Your task to perform on an android device: clear history in the chrome app Image 0: 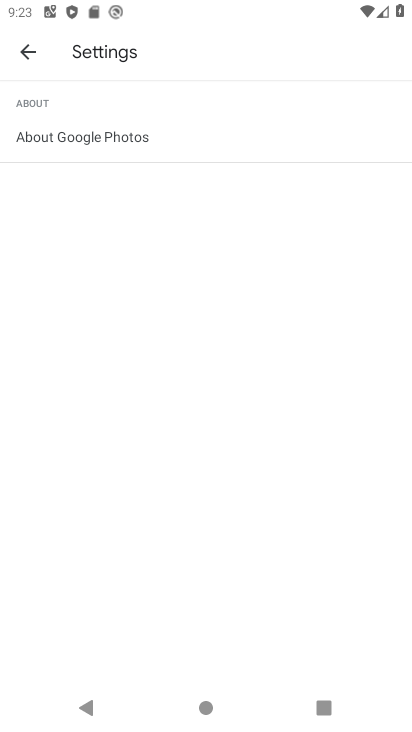
Step 0: click (19, 53)
Your task to perform on an android device: clear history in the chrome app Image 1: 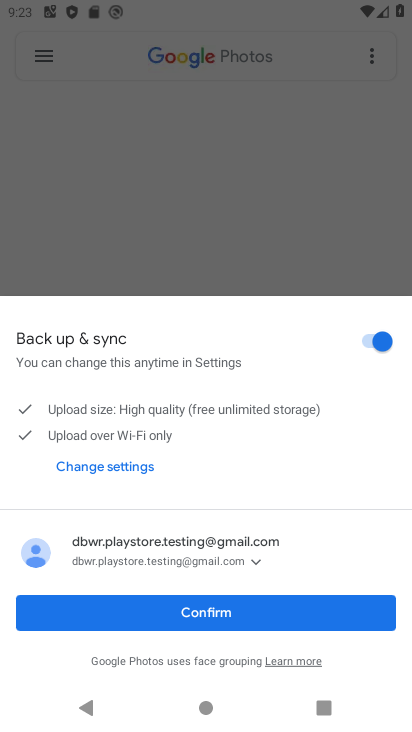
Step 1: click (180, 611)
Your task to perform on an android device: clear history in the chrome app Image 2: 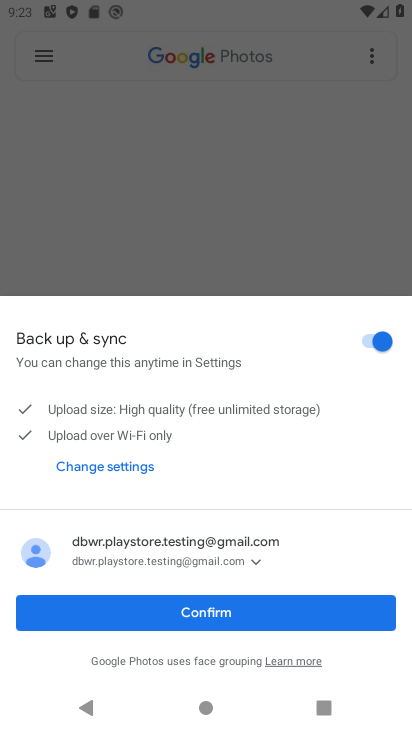
Step 2: click (181, 611)
Your task to perform on an android device: clear history in the chrome app Image 3: 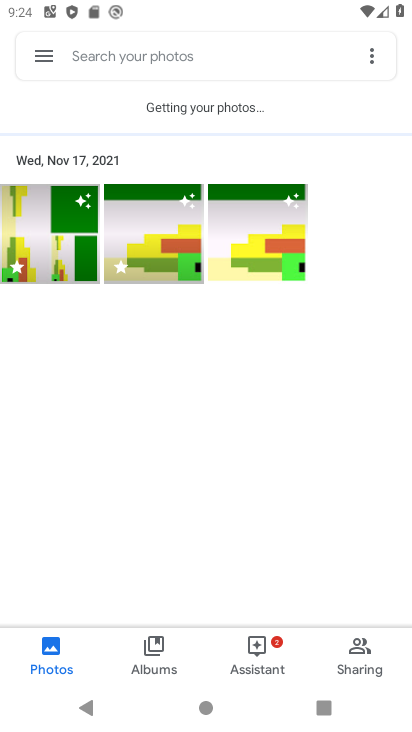
Step 3: press home button
Your task to perform on an android device: clear history in the chrome app Image 4: 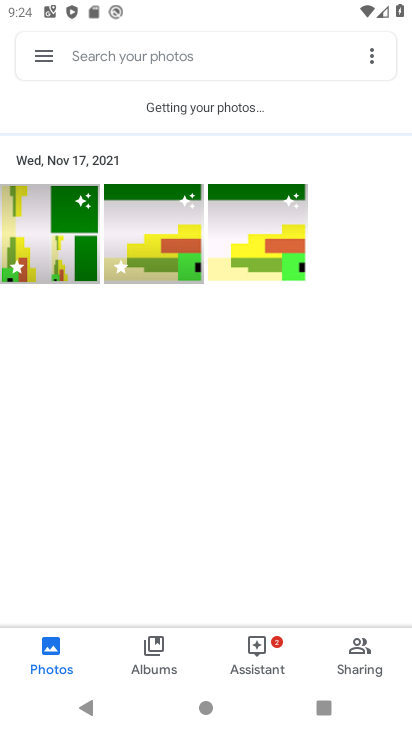
Step 4: press home button
Your task to perform on an android device: clear history in the chrome app Image 5: 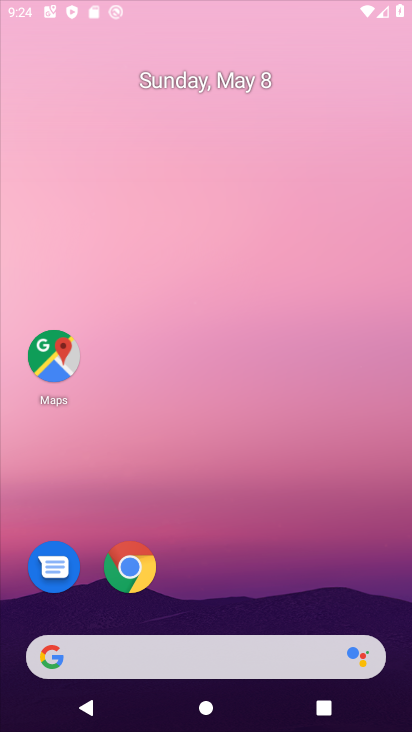
Step 5: press home button
Your task to perform on an android device: clear history in the chrome app Image 6: 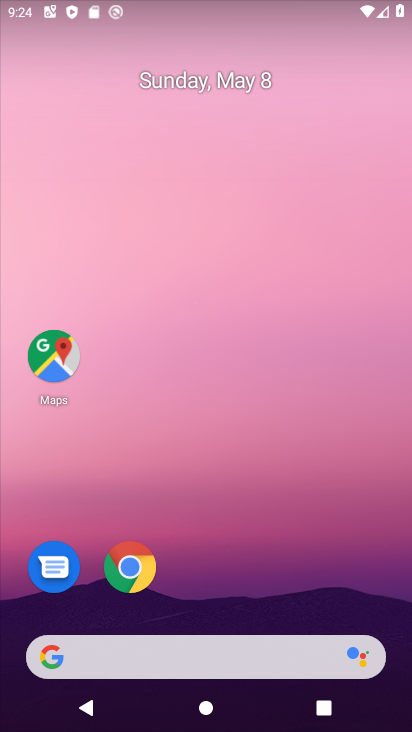
Step 6: drag from (272, 638) to (94, 127)
Your task to perform on an android device: clear history in the chrome app Image 7: 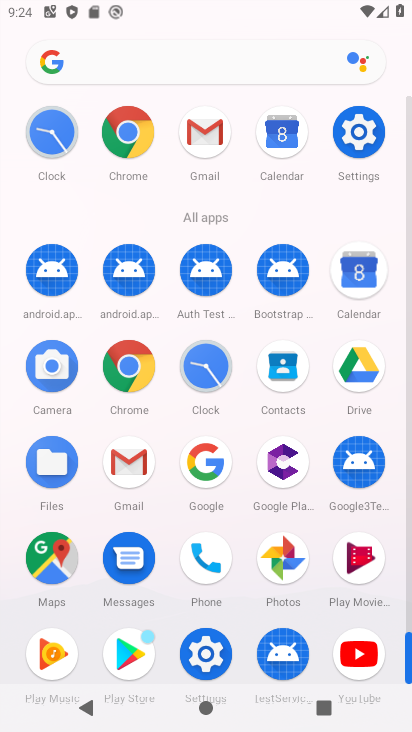
Step 7: click (127, 126)
Your task to perform on an android device: clear history in the chrome app Image 8: 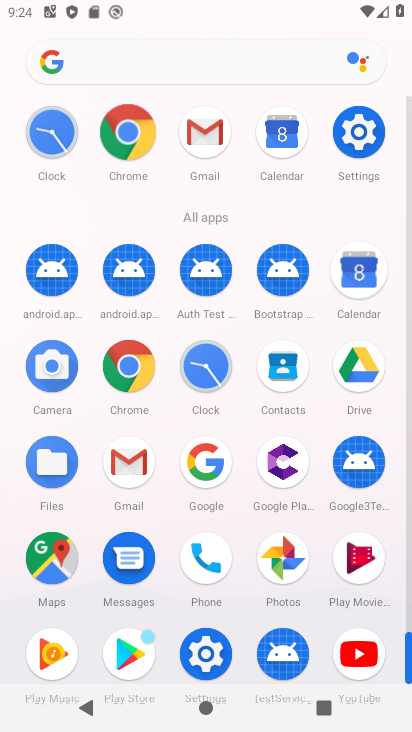
Step 8: click (126, 125)
Your task to perform on an android device: clear history in the chrome app Image 9: 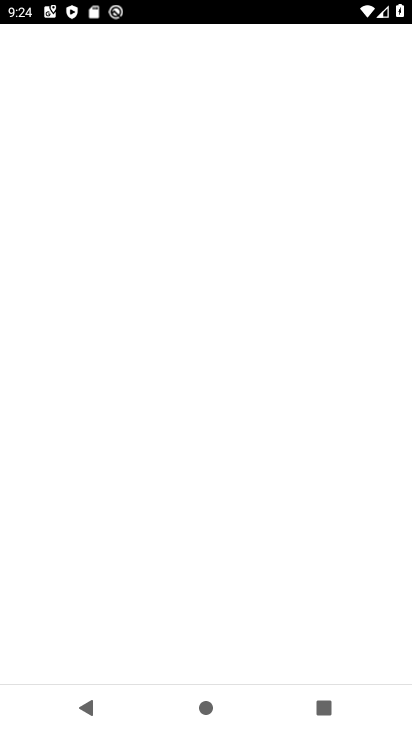
Step 9: click (123, 123)
Your task to perform on an android device: clear history in the chrome app Image 10: 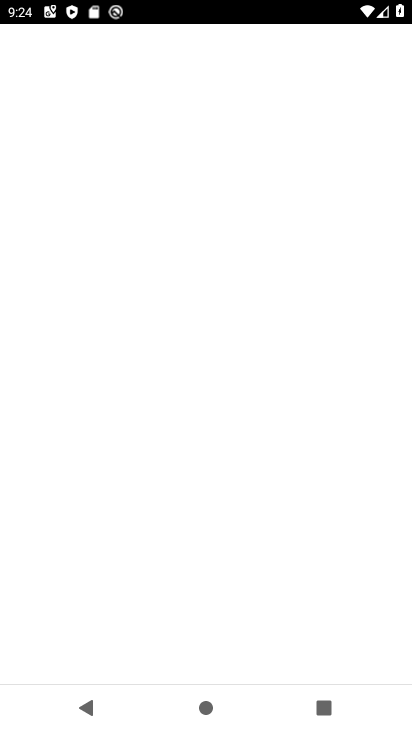
Step 10: click (124, 122)
Your task to perform on an android device: clear history in the chrome app Image 11: 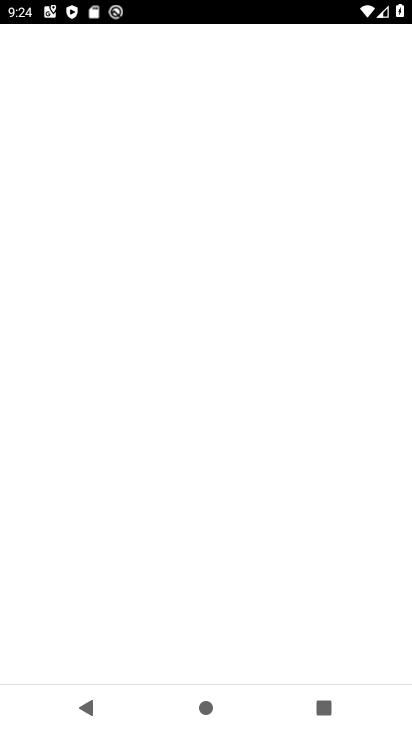
Step 11: click (125, 121)
Your task to perform on an android device: clear history in the chrome app Image 12: 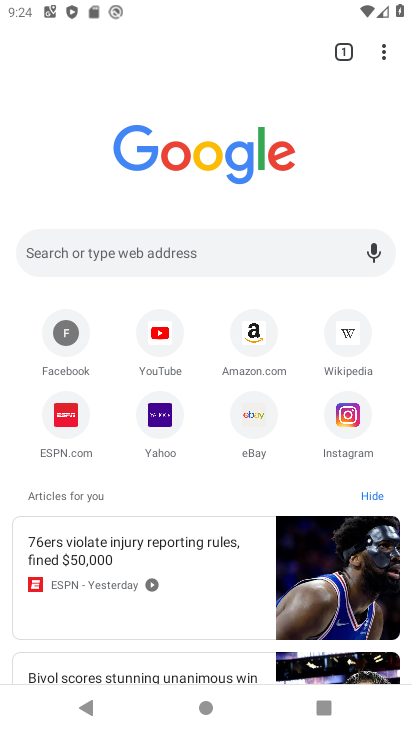
Step 12: click (381, 54)
Your task to perform on an android device: clear history in the chrome app Image 13: 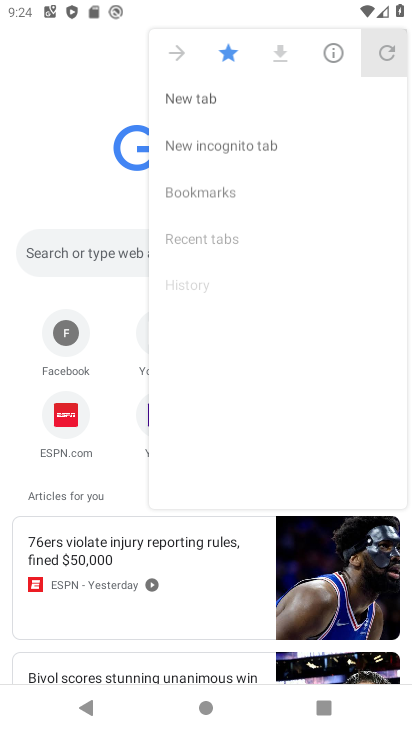
Step 13: click (380, 53)
Your task to perform on an android device: clear history in the chrome app Image 14: 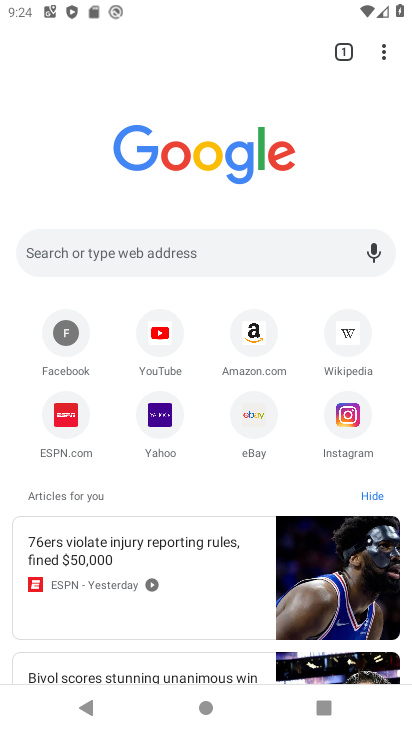
Step 14: click (383, 46)
Your task to perform on an android device: clear history in the chrome app Image 15: 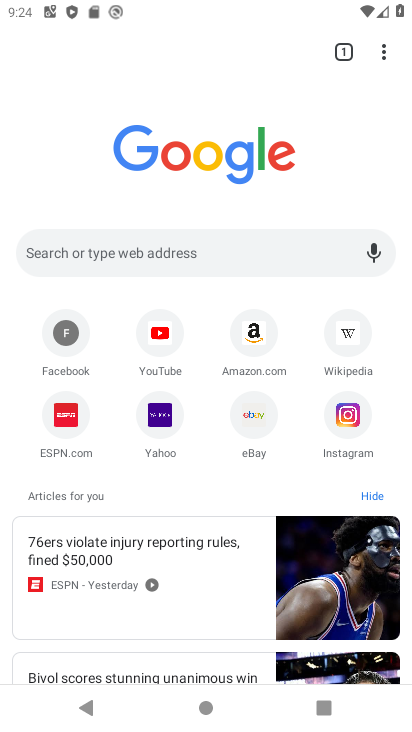
Step 15: click (387, 45)
Your task to perform on an android device: clear history in the chrome app Image 16: 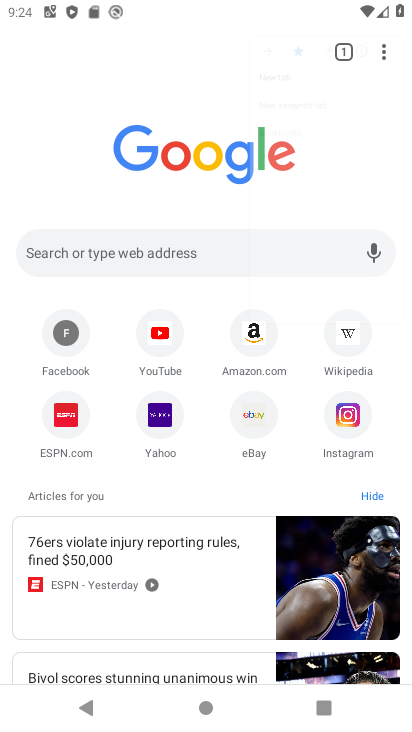
Step 16: click (380, 51)
Your task to perform on an android device: clear history in the chrome app Image 17: 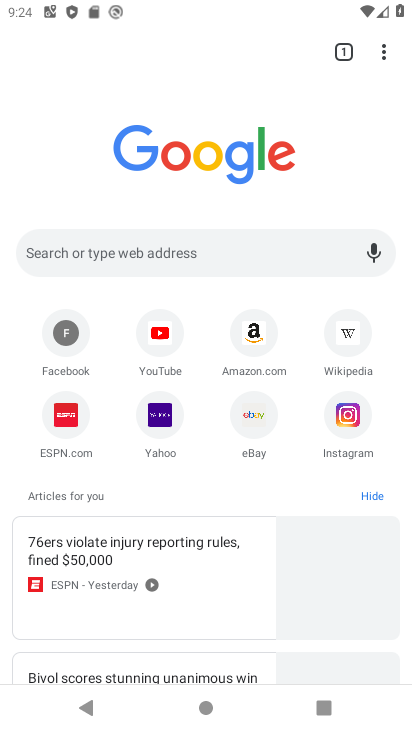
Step 17: click (380, 51)
Your task to perform on an android device: clear history in the chrome app Image 18: 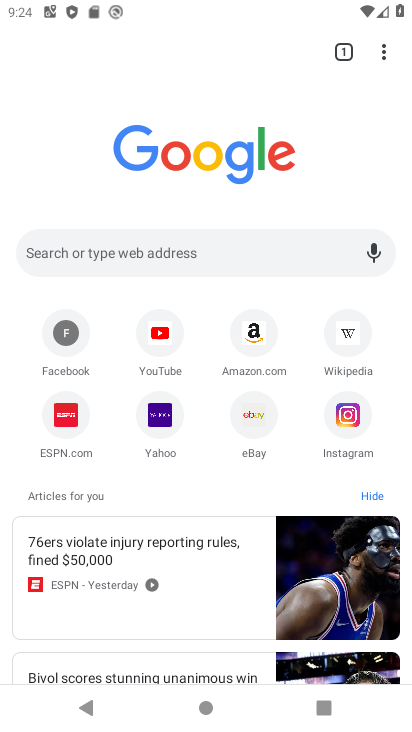
Step 18: click (378, 53)
Your task to perform on an android device: clear history in the chrome app Image 19: 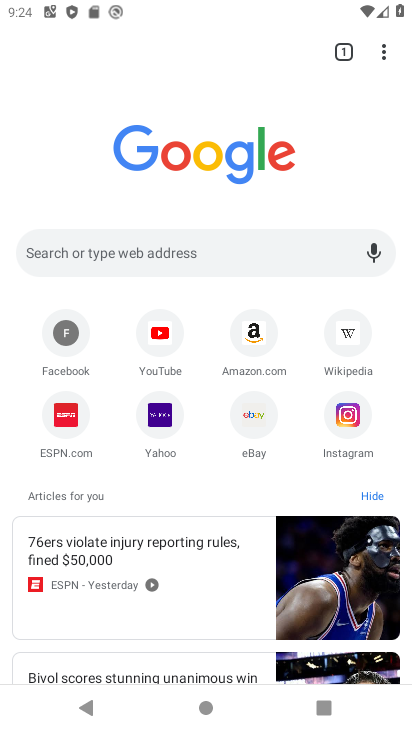
Step 19: click (379, 50)
Your task to perform on an android device: clear history in the chrome app Image 20: 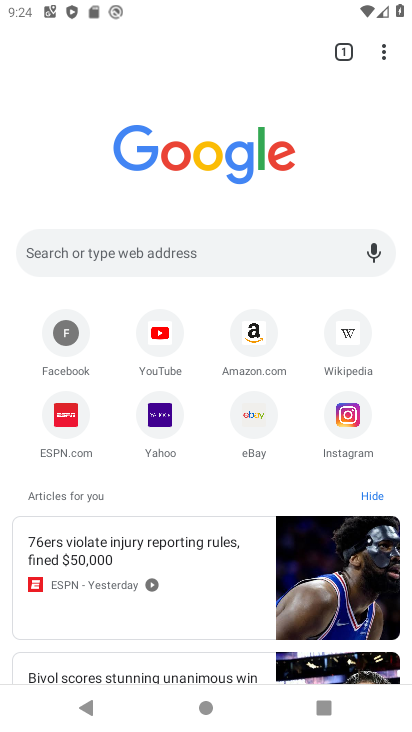
Step 20: click (382, 57)
Your task to perform on an android device: clear history in the chrome app Image 21: 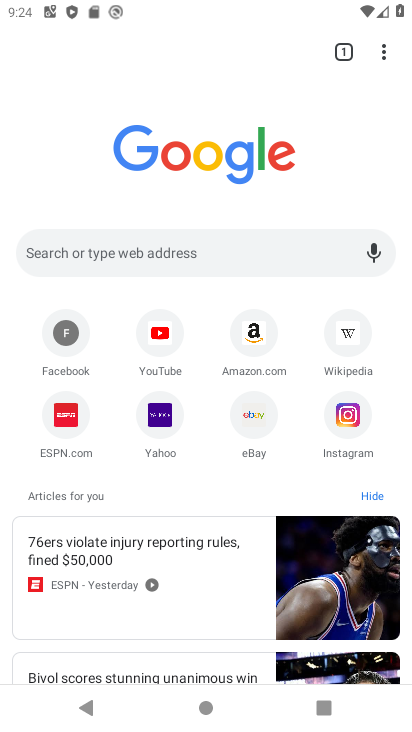
Step 21: drag from (382, 51) to (187, 442)
Your task to perform on an android device: clear history in the chrome app Image 22: 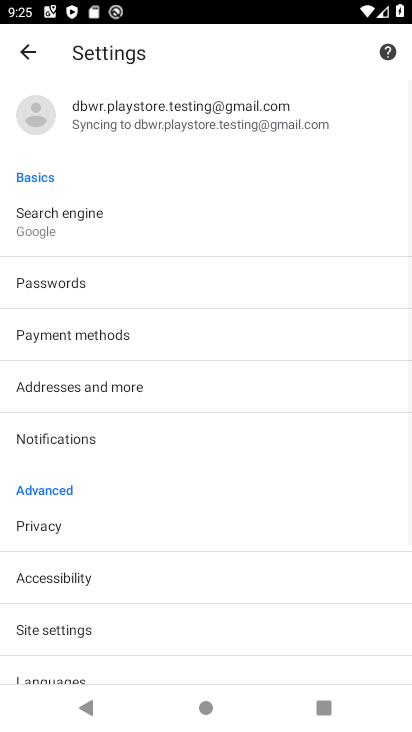
Step 22: click (22, 50)
Your task to perform on an android device: clear history in the chrome app Image 23: 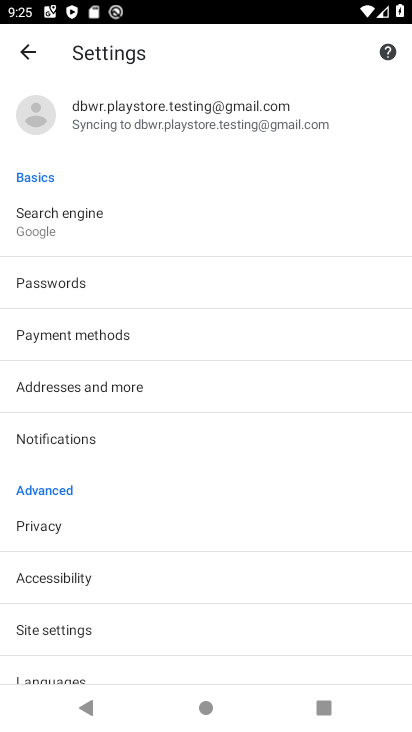
Step 23: click (22, 50)
Your task to perform on an android device: clear history in the chrome app Image 24: 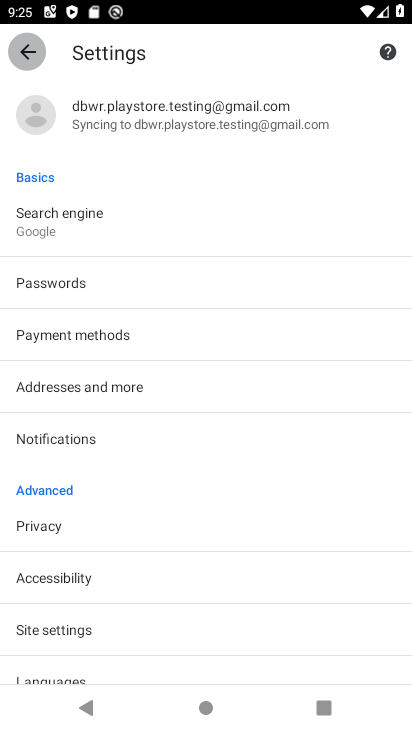
Step 24: click (22, 50)
Your task to perform on an android device: clear history in the chrome app Image 25: 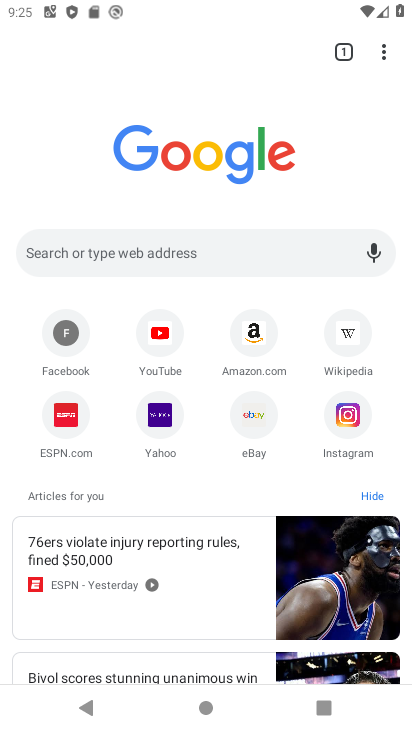
Step 25: click (378, 54)
Your task to perform on an android device: clear history in the chrome app Image 26: 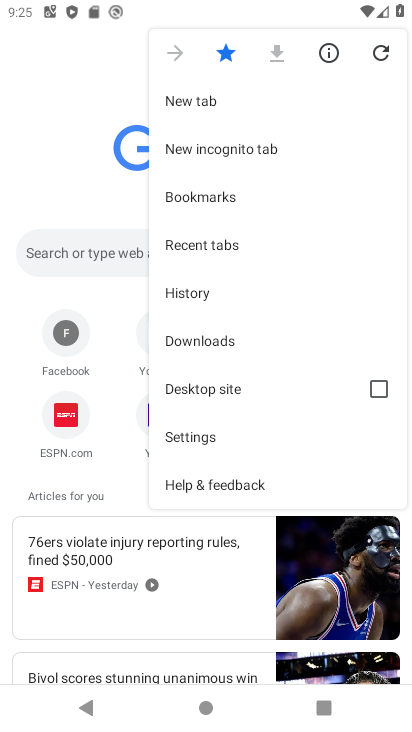
Step 26: click (183, 295)
Your task to perform on an android device: clear history in the chrome app Image 27: 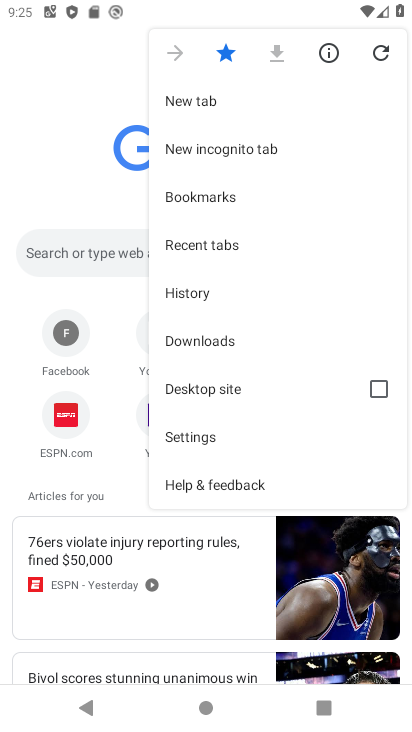
Step 27: click (183, 295)
Your task to perform on an android device: clear history in the chrome app Image 28: 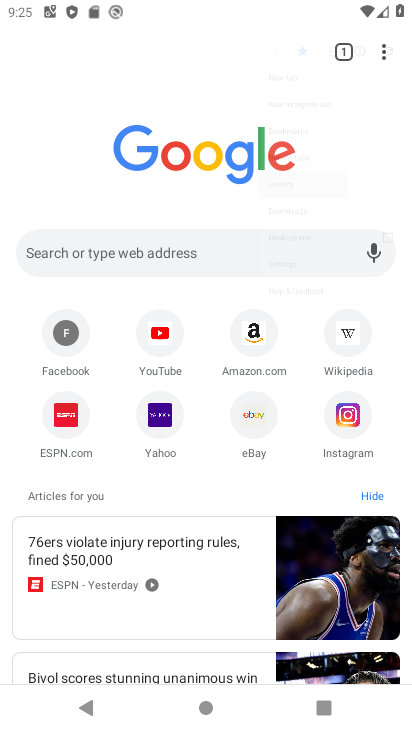
Step 28: click (183, 295)
Your task to perform on an android device: clear history in the chrome app Image 29: 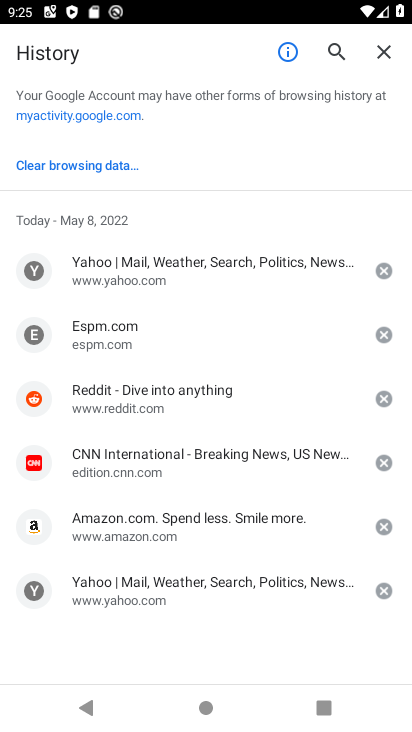
Step 29: click (383, 267)
Your task to perform on an android device: clear history in the chrome app Image 30: 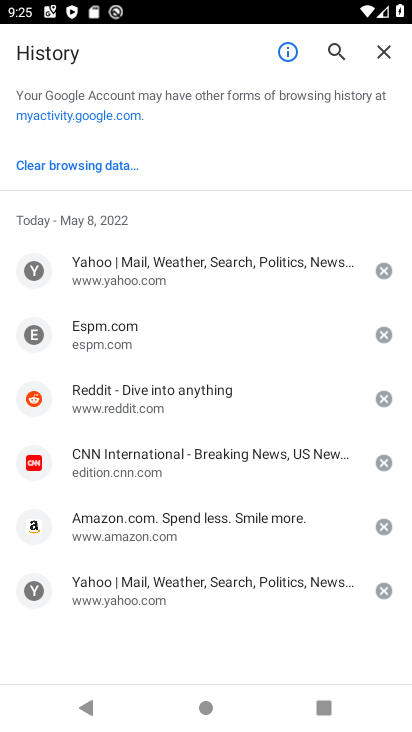
Step 30: click (383, 267)
Your task to perform on an android device: clear history in the chrome app Image 31: 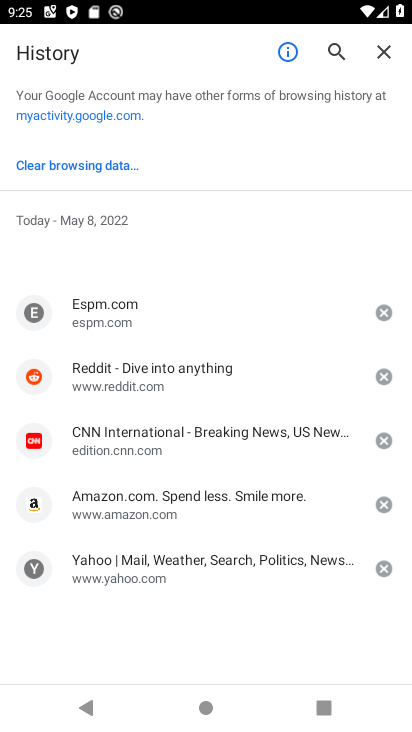
Step 31: click (383, 267)
Your task to perform on an android device: clear history in the chrome app Image 32: 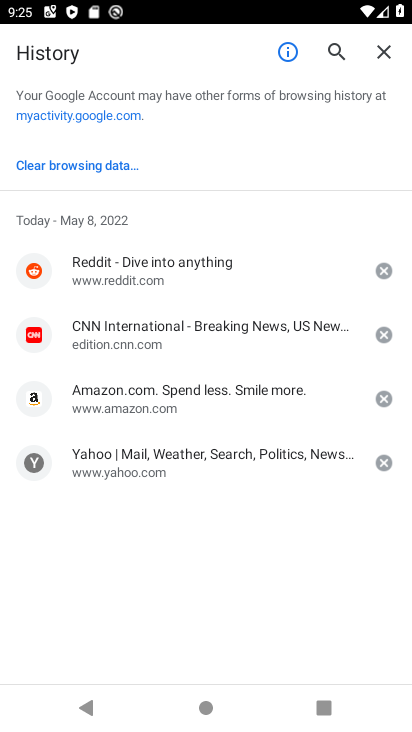
Step 32: task complete